Your task to perform on an android device: What's the weather going to be this weekend? Image 0: 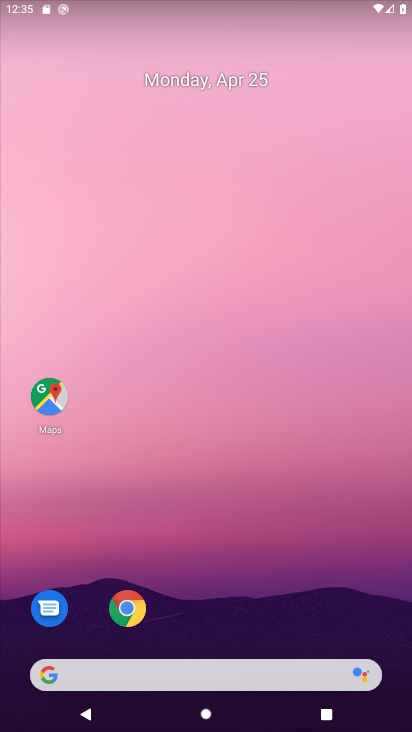
Step 0: drag from (235, 616) to (298, 24)
Your task to perform on an android device: What's the weather going to be this weekend? Image 1: 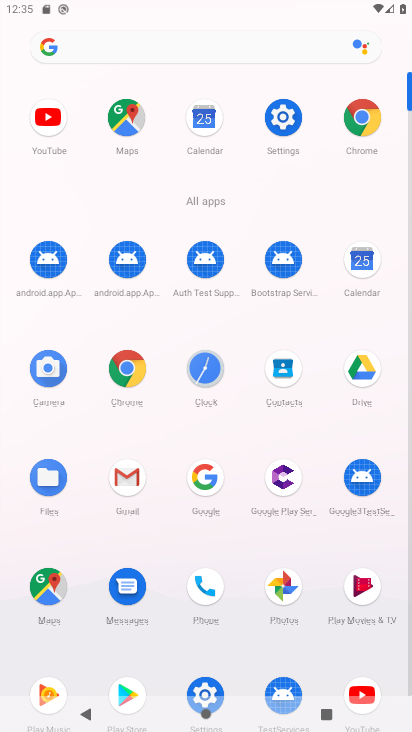
Step 1: click (411, 662)
Your task to perform on an android device: What's the weather going to be this weekend? Image 2: 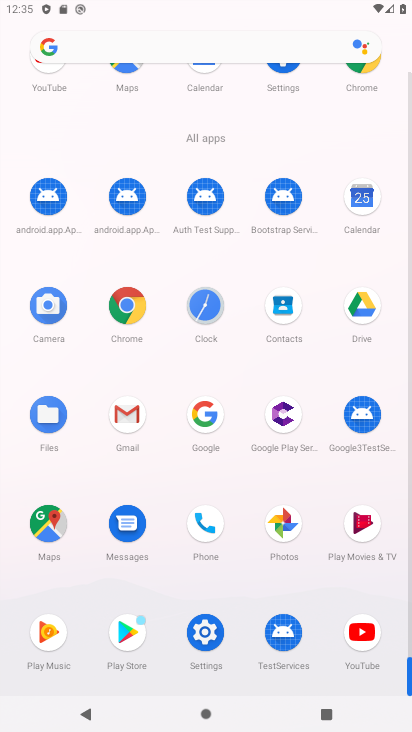
Step 2: click (368, 213)
Your task to perform on an android device: What's the weather going to be this weekend? Image 3: 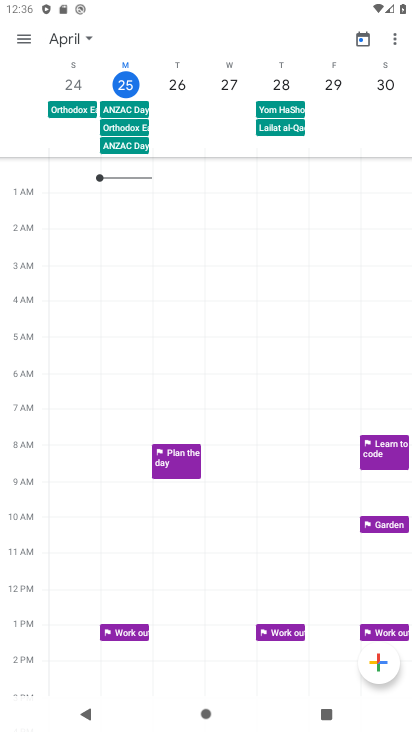
Step 3: press home button
Your task to perform on an android device: What's the weather going to be this weekend? Image 4: 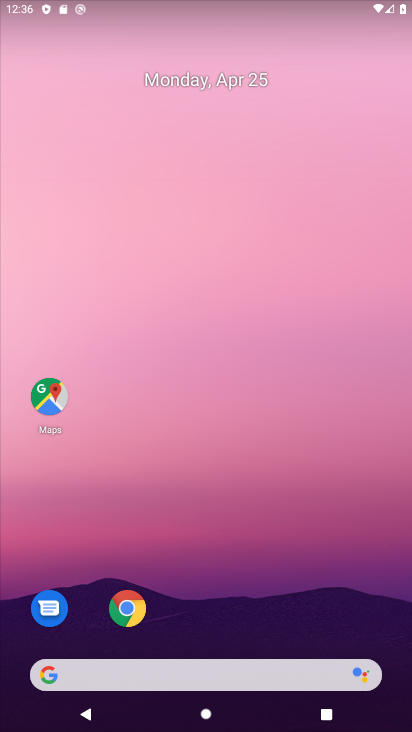
Step 4: drag from (262, 600) to (204, 155)
Your task to perform on an android device: What's the weather going to be this weekend? Image 5: 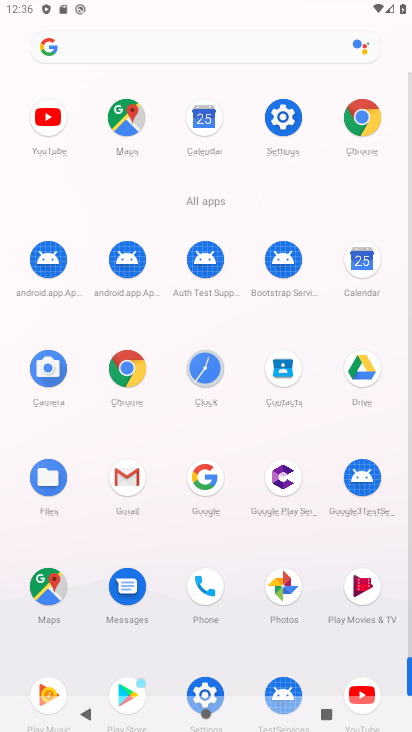
Step 5: click (371, 127)
Your task to perform on an android device: What's the weather going to be this weekend? Image 6: 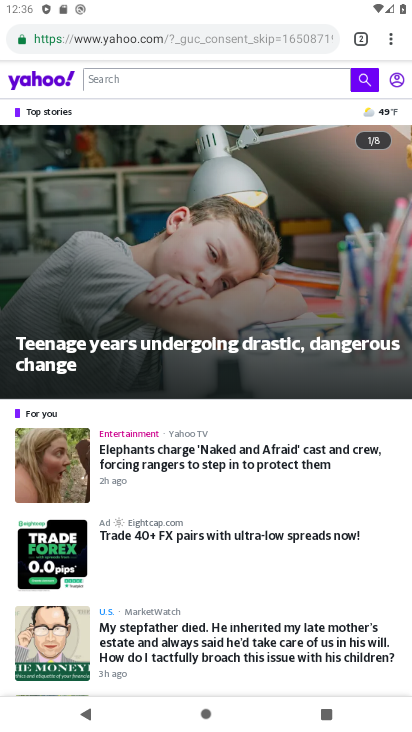
Step 6: click (230, 34)
Your task to perform on an android device: What's the weather going to be this weekend? Image 7: 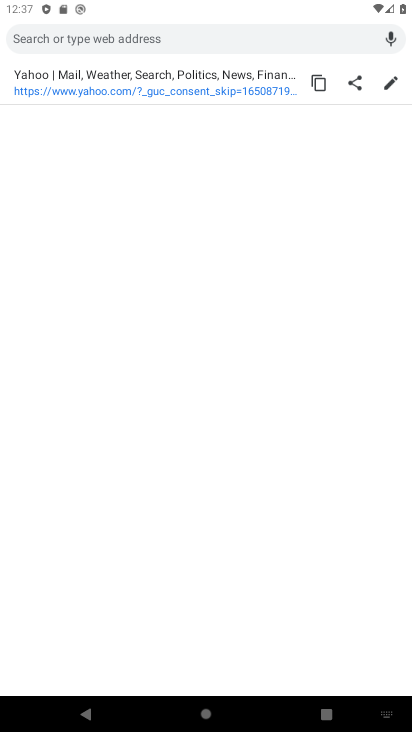
Step 7: type "What's the weather going to be this weekend?"
Your task to perform on an android device: What's the weather going to be this weekend? Image 8: 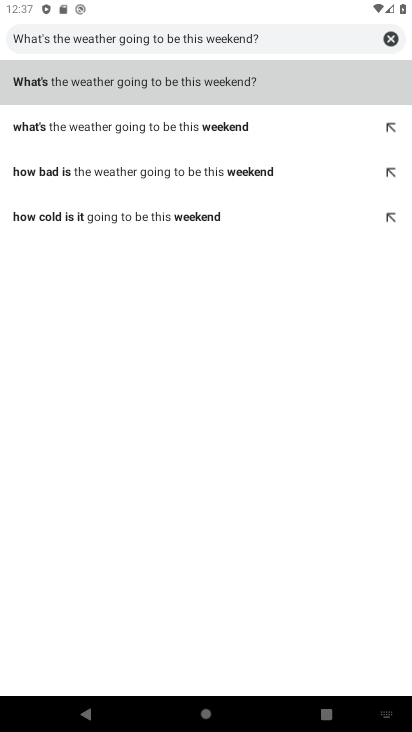
Step 8: click (230, 80)
Your task to perform on an android device: What's the weather going to be this weekend? Image 9: 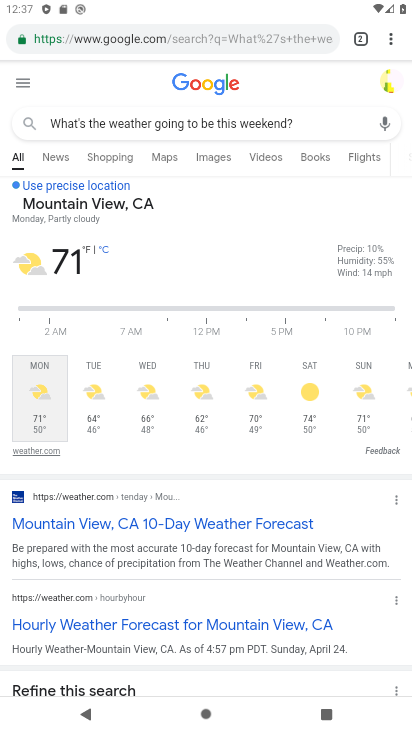
Step 9: task complete